Your task to perform on an android device: turn on showing notifications on the lock screen Image 0: 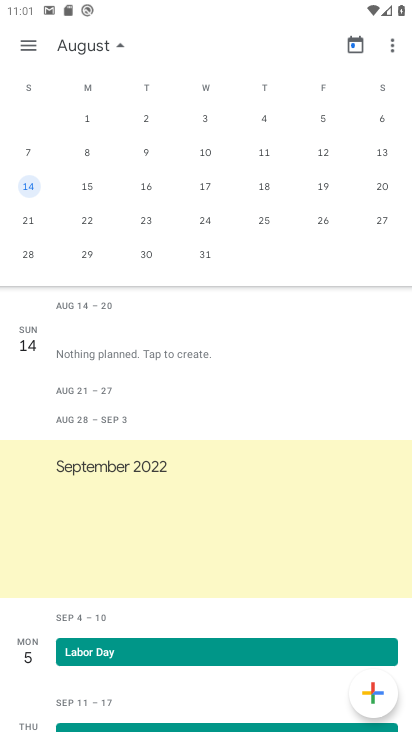
Step 0: press home button
Your task to perform on an android device: turn on showing notifications on the lock screen Image 1: 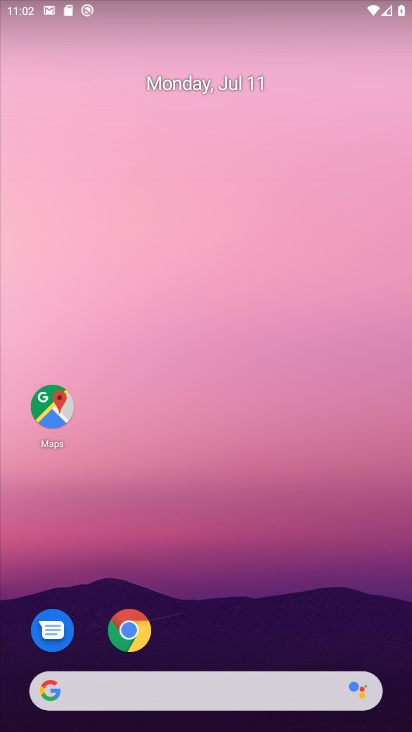
Step 1: drag from (209, 626) to (267, 129)
Your task to perform on an android device: turn on showing notifications on the lock screen Image 2: 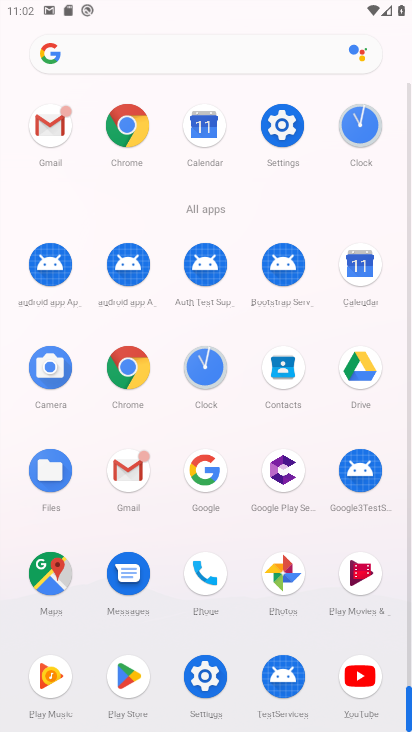
Step 2: click (286, 133)
Your task to perform on an android device: turn on showing notifications on the lock screen Image 3: 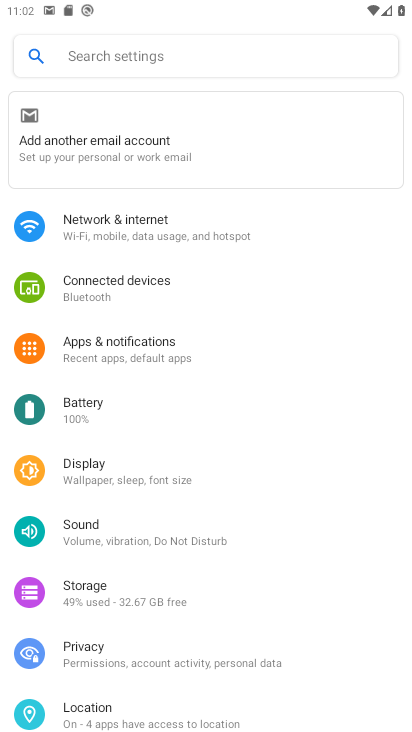
Step 3: click (183, 342)
Your task to perform on an android device: turn on showing notifications on the lock screen Image 4: 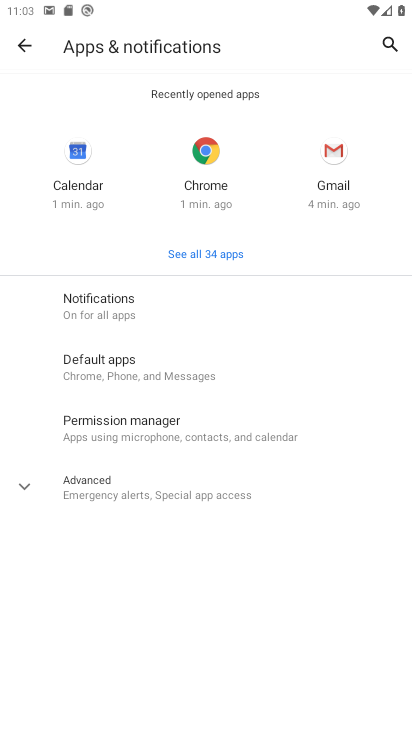
Step 4: click (165, 301)
Your task to perform on an android device: turn on showing notifications on the lock screen Image 5: 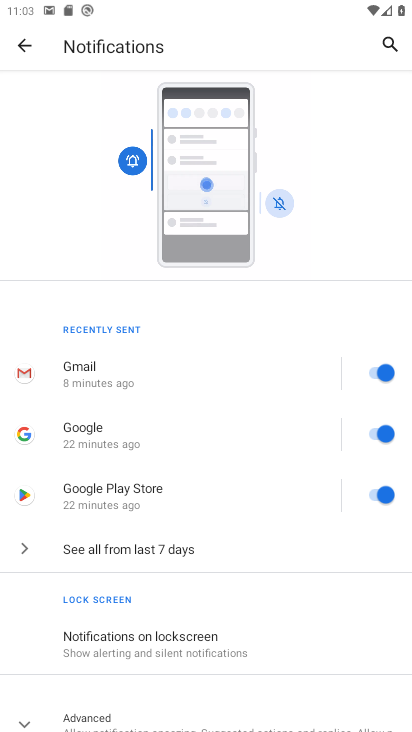
Step 5: drag from (171, 581) to (231, 328)
Your task to perform on an android device: turn on showing notifications on the lock screen Image 6: 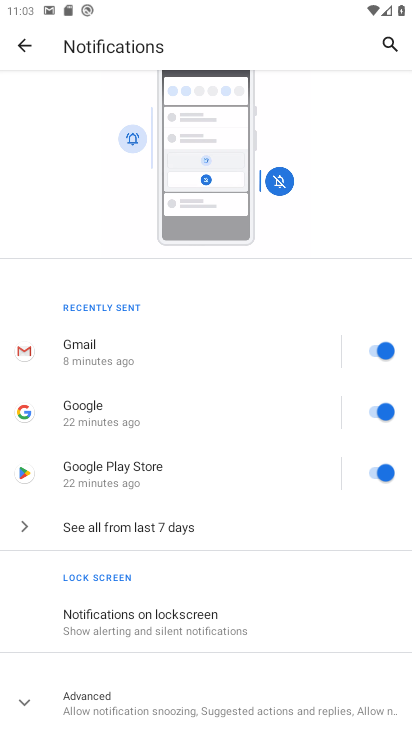
Step 6: click (194, 626)
Your task to perform on an android device: turn on showing notifications on the lock screen Image 7: 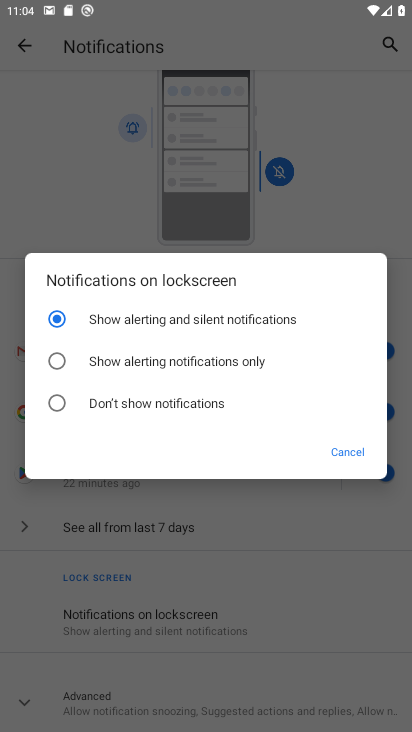
Step 7: task complete